Your task to perform on an android device: Open battery settings Image 0: 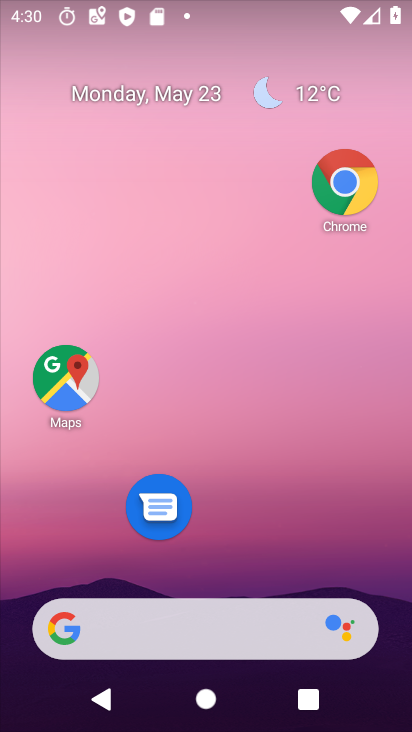
Step 0: drag from (203, 568) to (192, 131)
Your task to perform on an android device: Open battery settings Image 1: 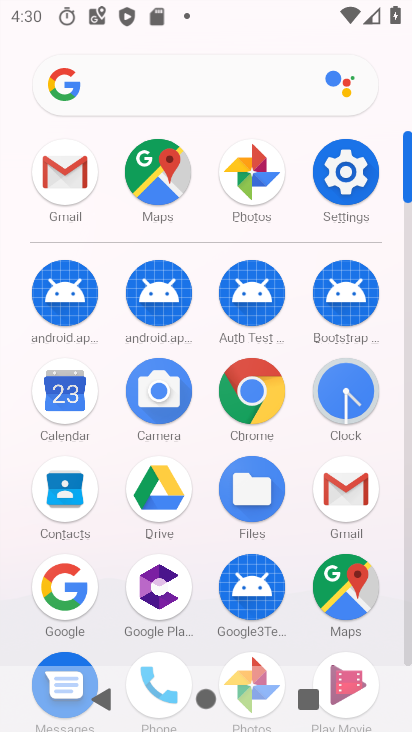
Step 1: drag from (221, 564) to (306, 64)
Your task to perform on an android device: Open battery settings Image 2: 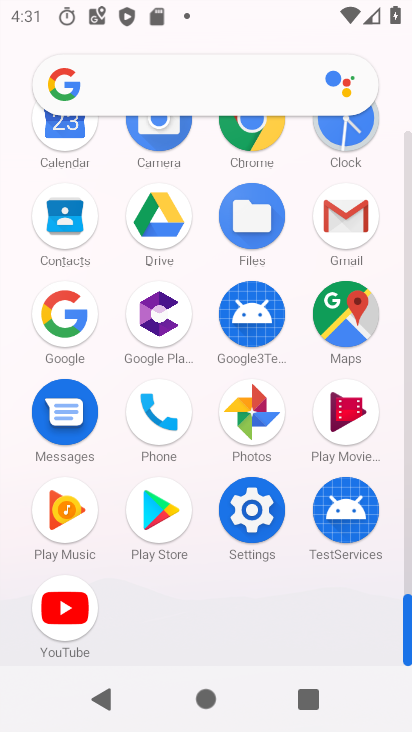
Step 2: click (238, 525)
Your task to perform on an android device: Open battery settings Image 3: 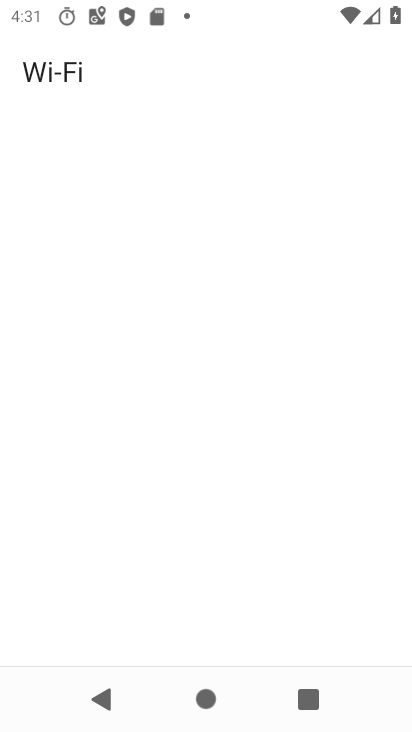
Step 3: click (238, 525)
Your task to perform on an android device: Open battery settings Image 4: 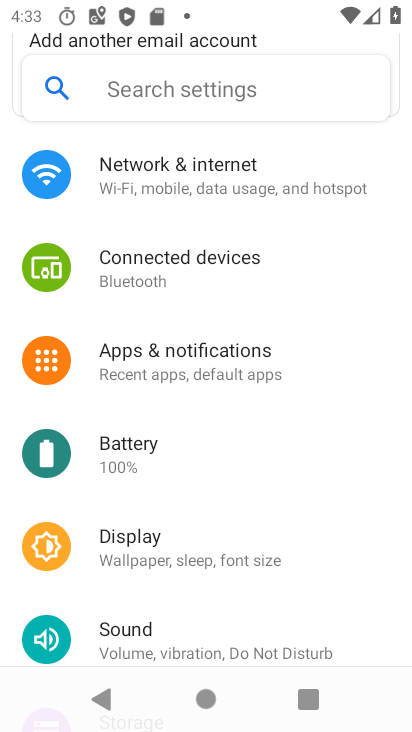
Step 4: task complete